Your task to perform on an android device: Open privacy settings Image 0: 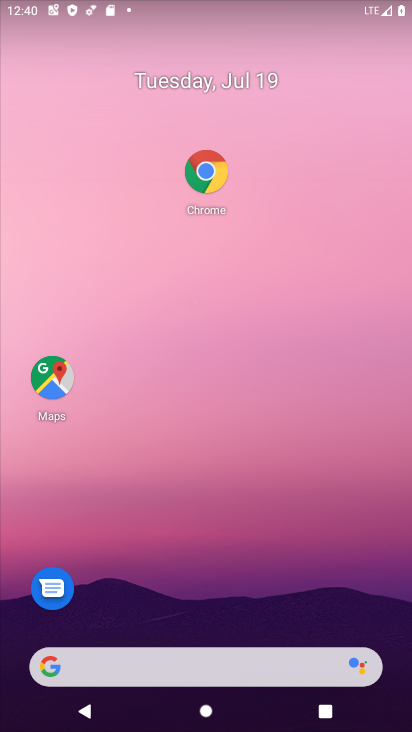
Step 0: drag from (137, 641) to (119, 269)
Your task to perform on an android device: Open privacy settings Image 1: 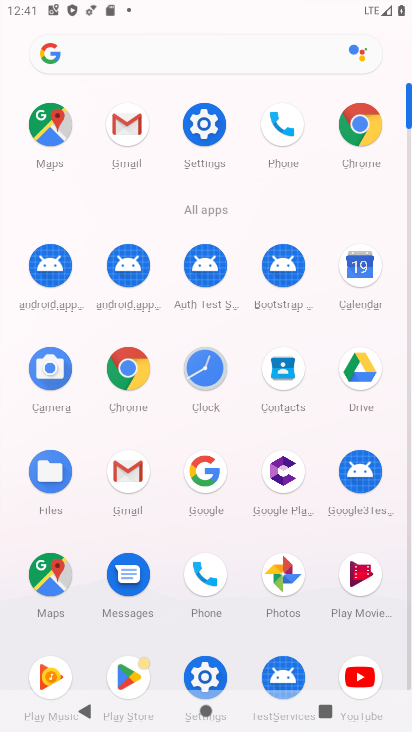
Step 1: click (200, 110)
Your task to perform on an android device: Open privacy settings Image 2: 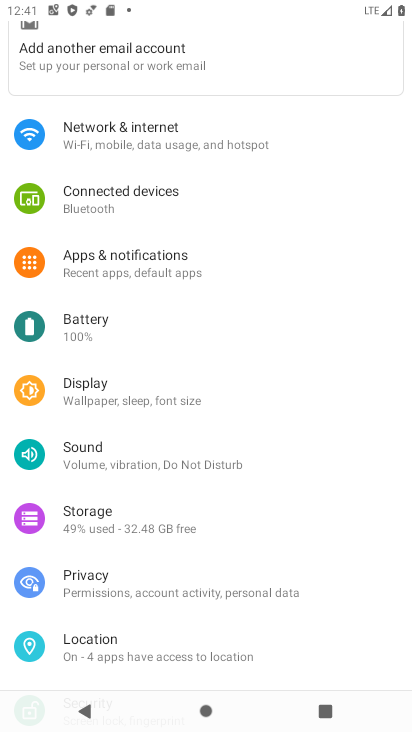
Step 2: click (120, 596)
Your task to perform on an android device: Open privacy settings Image 3: 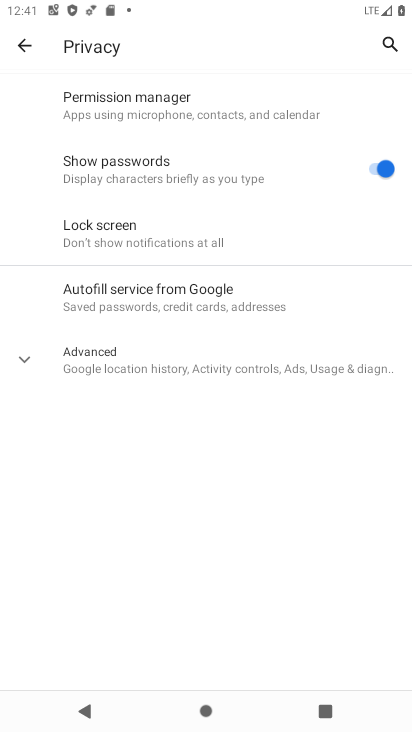
Step 3: task complete